Your task to perform on an android device: toggle airplane mode Image 0: 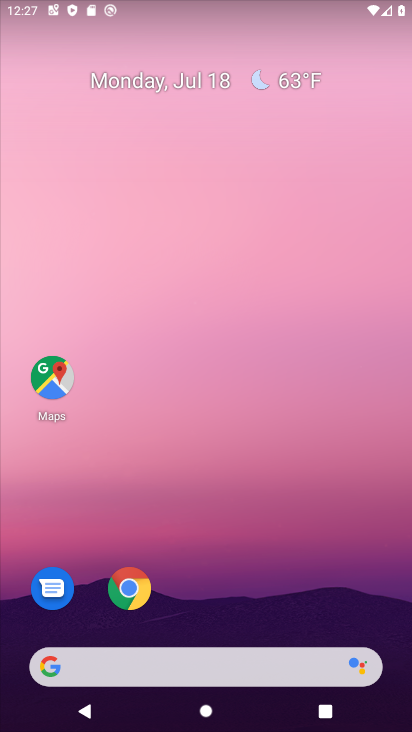
Step 0: drag from (239, 717) to (245, 67)
Your task to perform on an android device: toggle airplane mode Image 1: 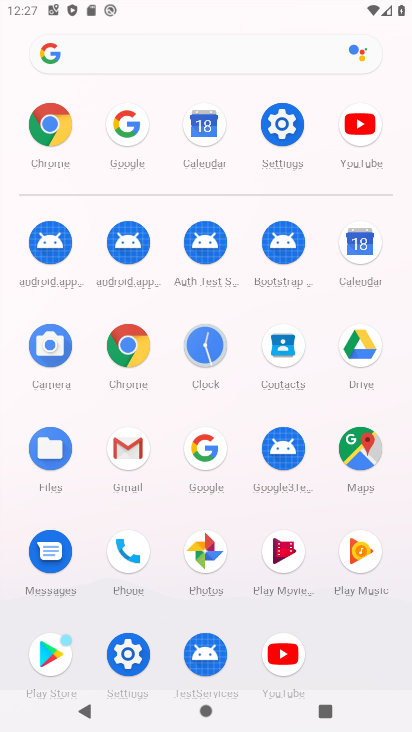
Step 1: click (282, 126)
Your task to perform on an android device: toggle airplane mode Image 2: 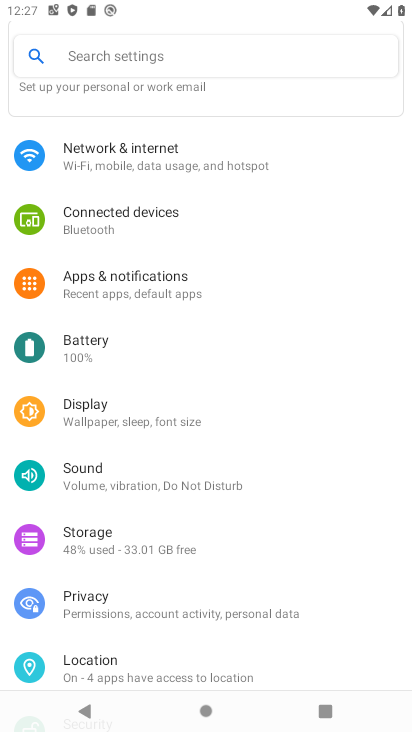
Step 2: click (119, 150)
Your task to perform on an android device: toggle airplane mode Image 3: 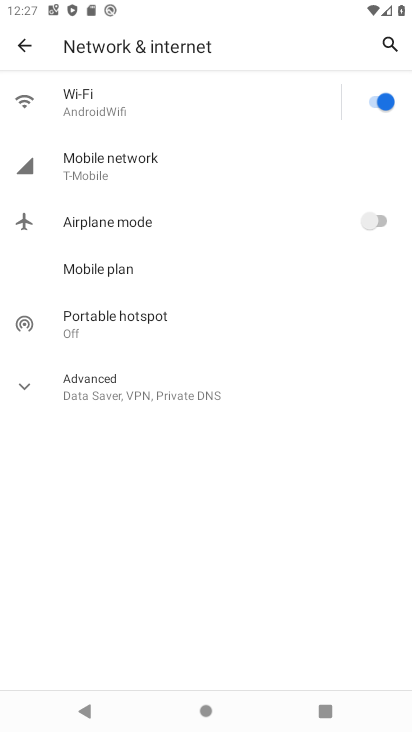
Step 3: click (382, 217)
Your task to perform on an android device: toggle airplane mode Image 4: 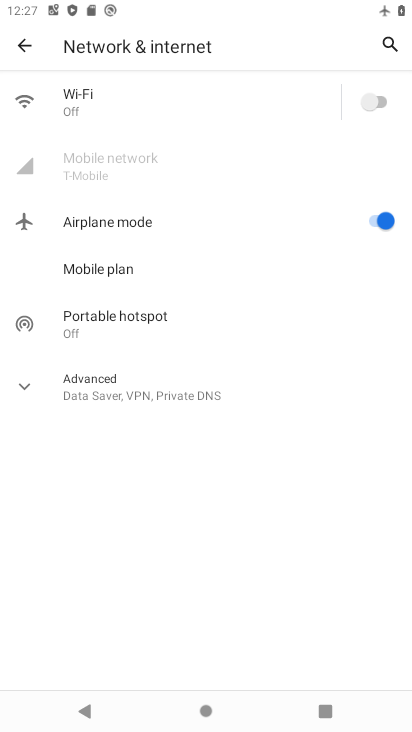
Step 4: task complete